Your task to perform on an android device: star an email in the gmail app Image 0: 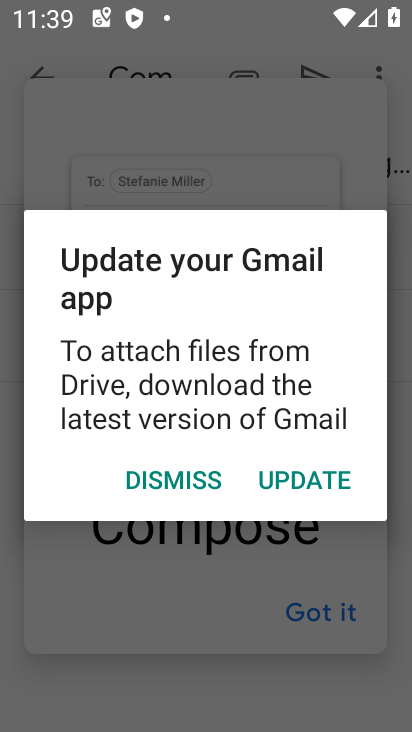
Step 0: press home button
Your task to perform on an android device: star an email in the gmail app Image 1: 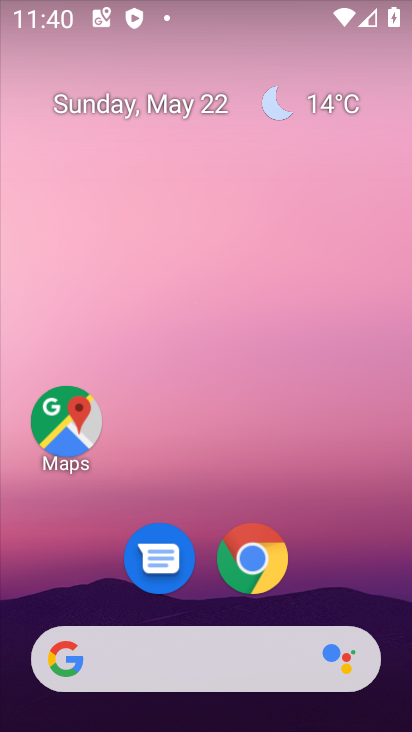
Step 1: drag from (341, 601) to (380, 25)
Your task to perform on an android device: star an email in the gmail app Image 2: 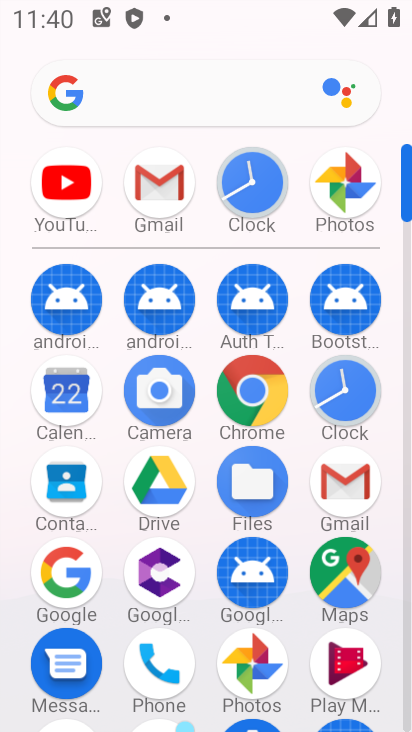
Step 2: click (160, 184)
Your task to perform on an android device: star an email in the gmail app Image 3: 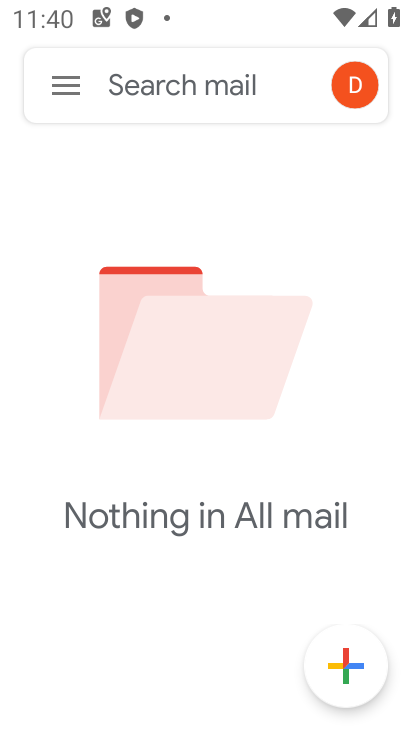
Step 3: task complete